Your task to perform on an android device: Search for pizza restaurants on Maps Image 0: 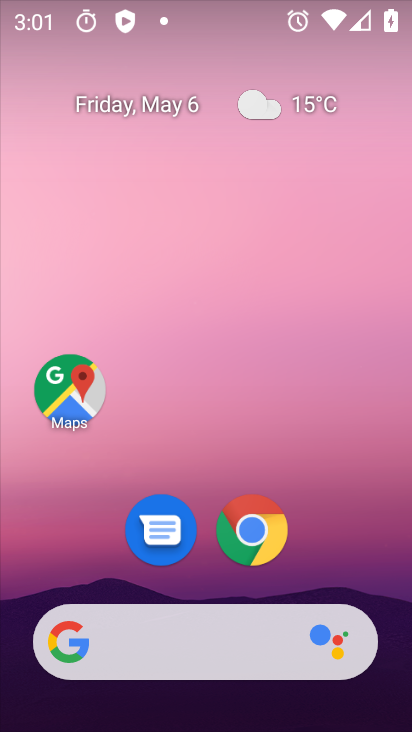
Step 0: drag from (349, 568) to (382, 130)
Your task to perform on an android device: Search for pizza restaurants on Maps Image 1: 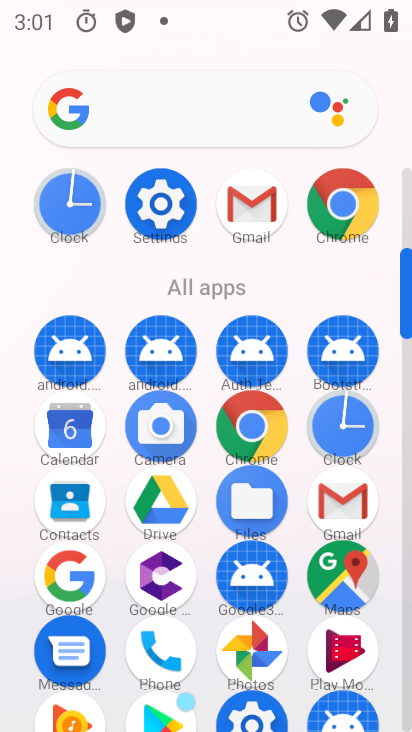
Step 1: click (340, 593)
Your task to perform on an android device: Search for pizza restaurants on Maps Image 2: 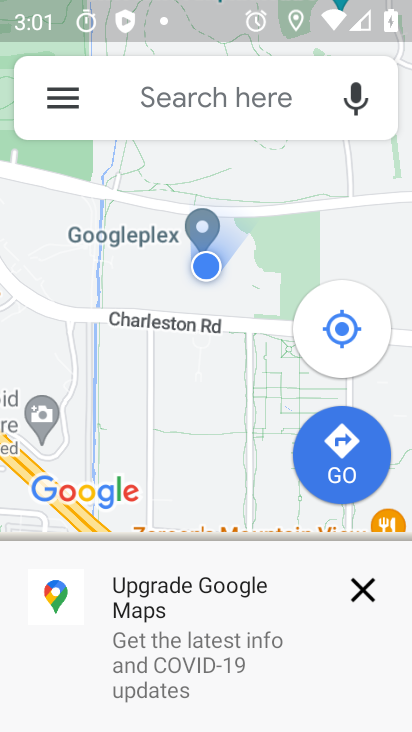
Step 2: click (216, 117)
Your task to perform on an android device: Search for pizza restaurants on Maps Image 3: 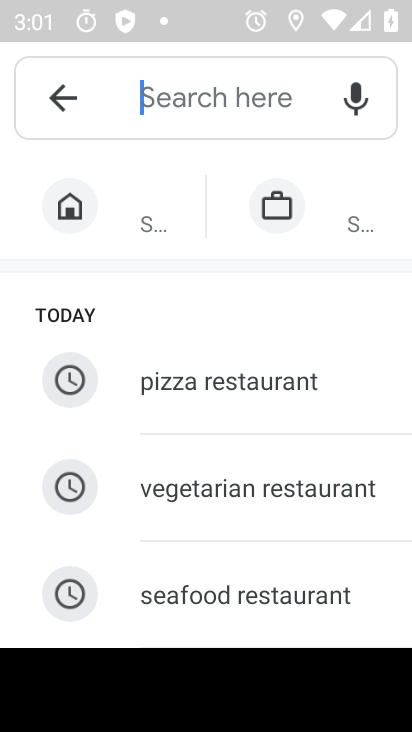
Step 3: click (297, 391)
Your task to perform on an android device: Search for pizza restaurants on Maps Image 4: 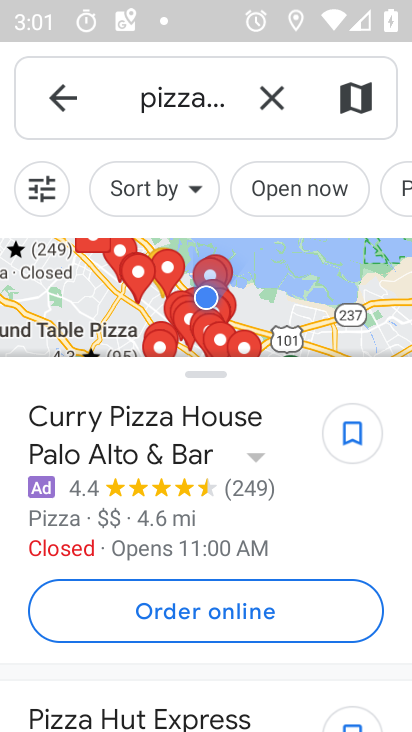
Step 4: task complete